Your task to perform on an android device: Open privacy settings Image 0: 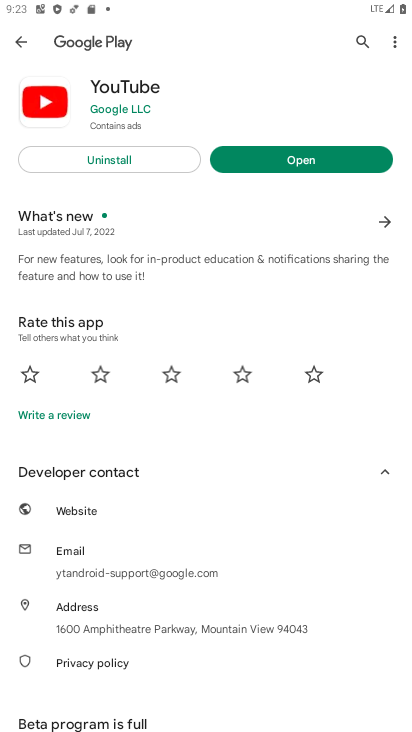
Step 0: press home button
Your task to perform on an android device: Open privacy settings Image 1: 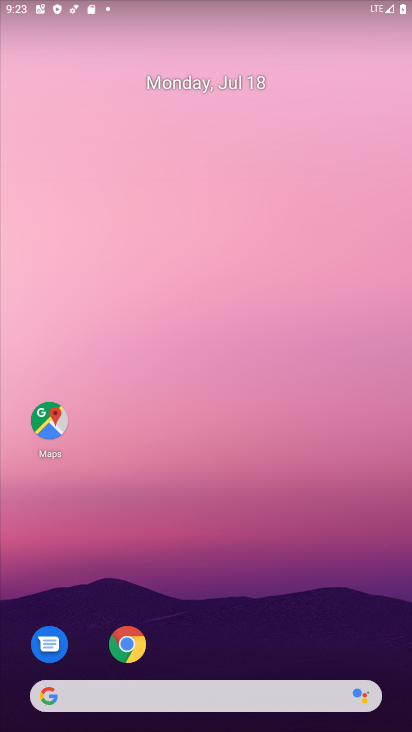
Step 1: drag from (227, 658) to (162, 0)
Your task to perform on an android device: Open privacy settings Image 2: 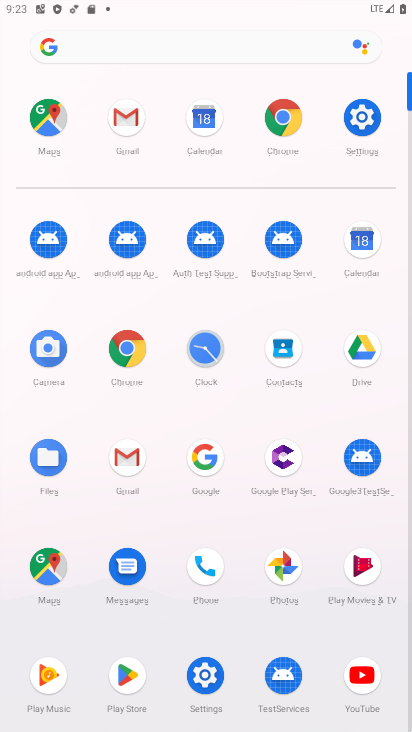
Step 2: click (237, 675)
Your task to perform on an android device: Open privacy settings Image 3: 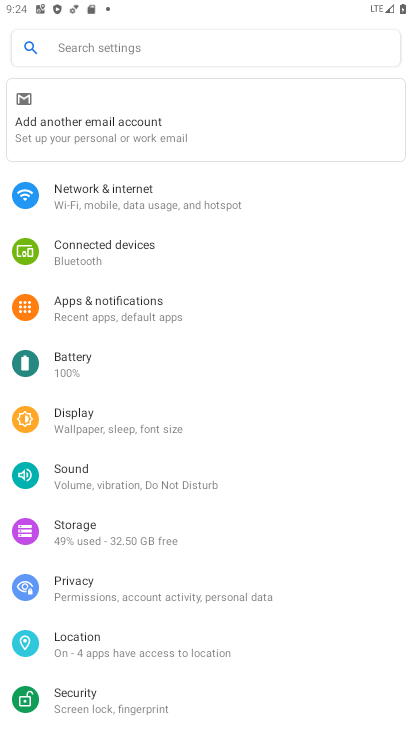
Step 3: click (85, 577)
Your task to perform on an android device: Open privacy settings Image 4: 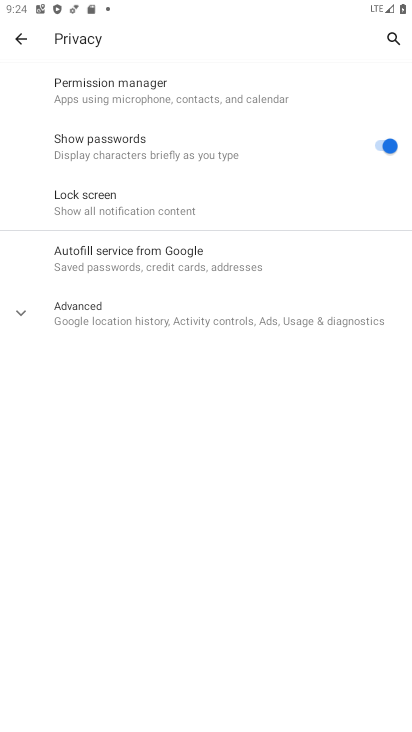
Step 4: click (52, 318)
Your task to perform on an android device: Open privacy settings Image 5: 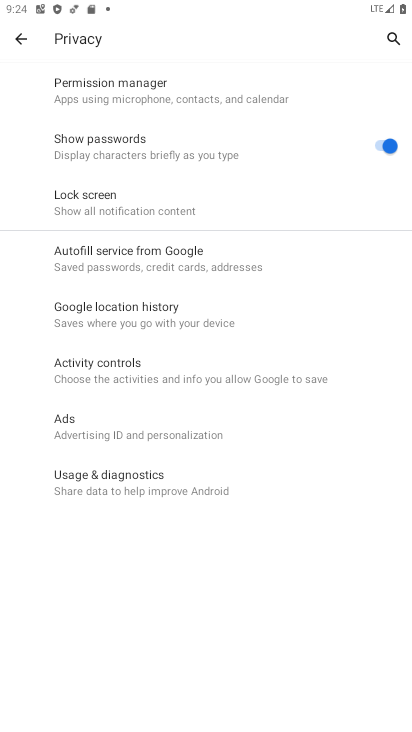
Step 5: task complete